Your task to perform on an android device: Check the weather Image 0: 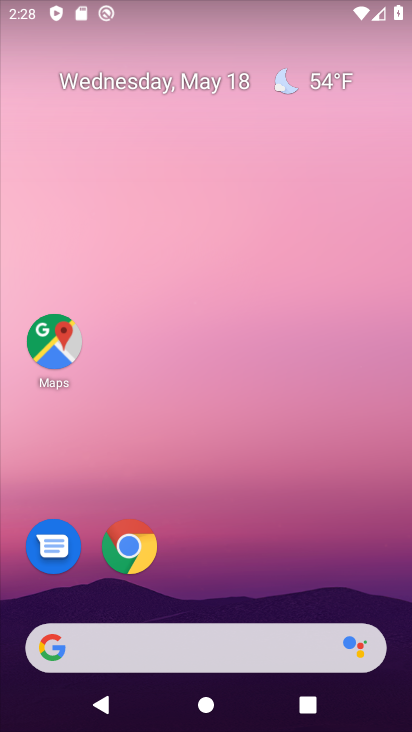
Step 0: click (119, 551)
Your task to perform on an android device: Check the weather Image 1: 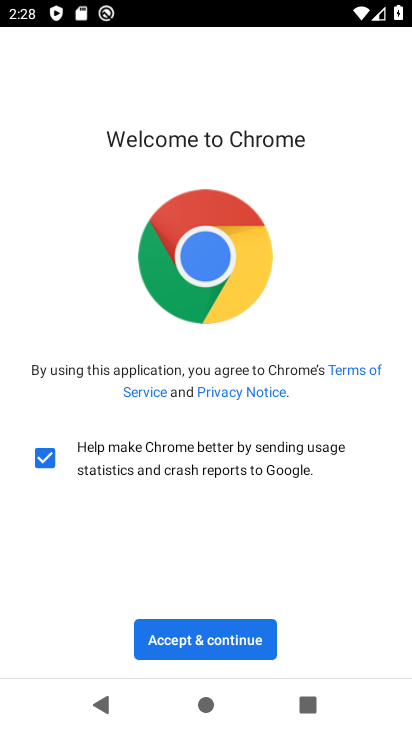
Step 1: click (242, 630)
Your task to perform on an android device: Check the weather Image 2: 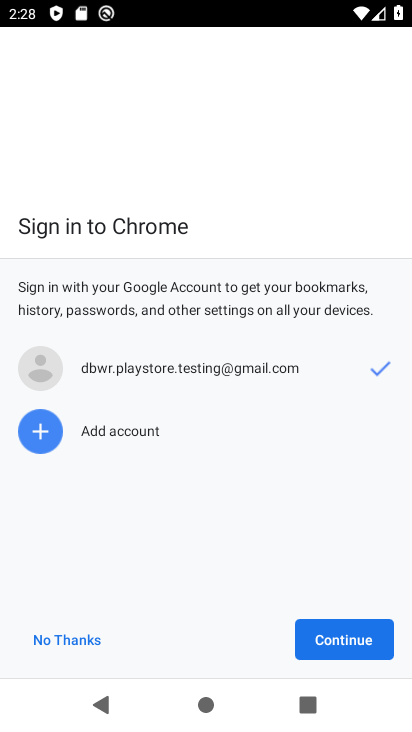
Step 2: click (382, 644)
Your task to perform on an android device: Check the weather Image 3: 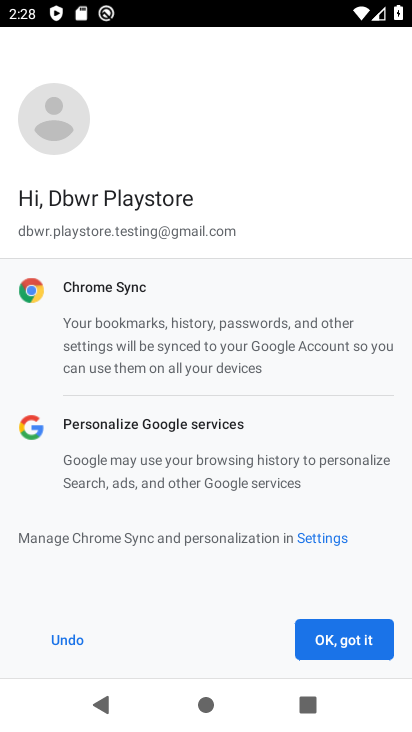
Step 3: click (361, 660)
Your task to perform on an android device: Check the weather Image 4: 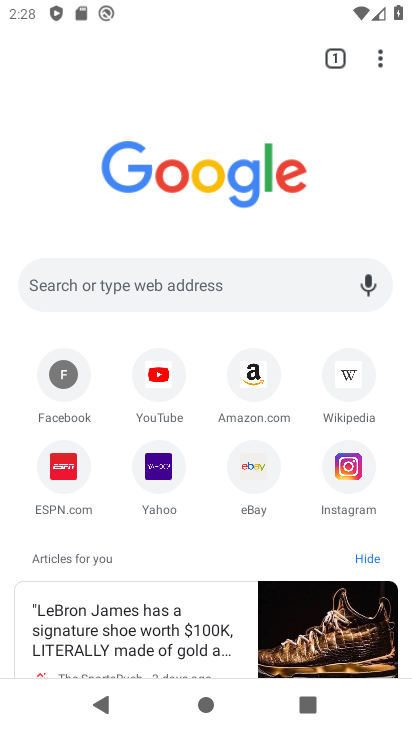
Step 4: click (204, 296)
Your task to perform on an android device: Check the weather Image 5: 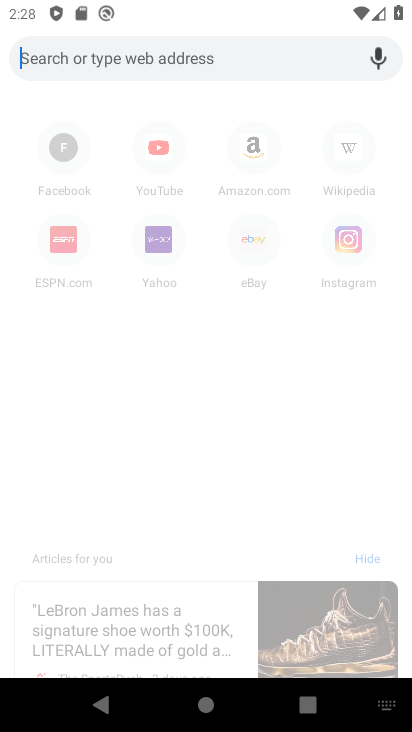
Step 5: type " weather"
Your task to perform on an android device: Check the weather Image 6: 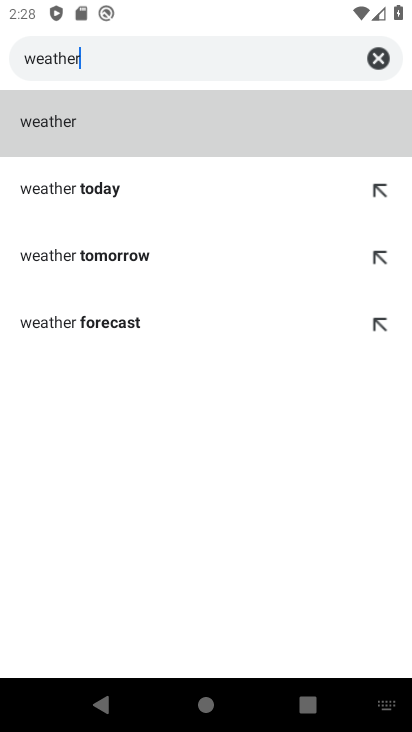
Step 6: click (53, 121)
Your task to perform on an android device: Check the weather Image 7: 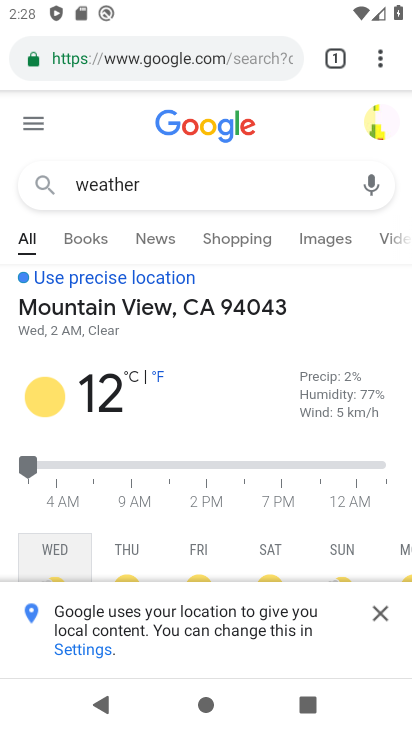
Step 7: task complete